Your task to perform on an android device: Open the stopwatch Image 0: 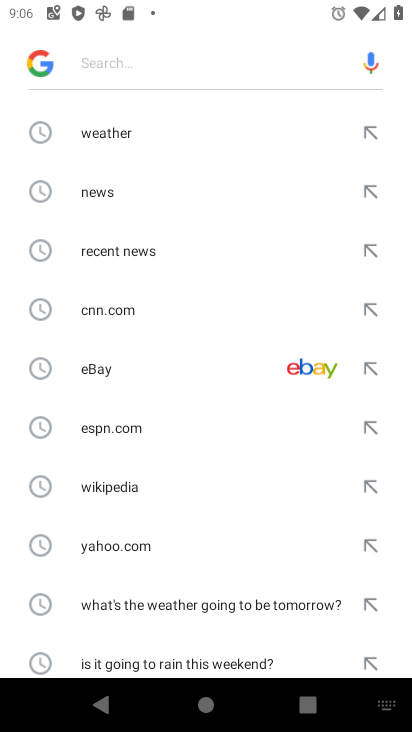
Step 0: press home button
Your task to perform on an android device: Open the stopwatch Image 1: 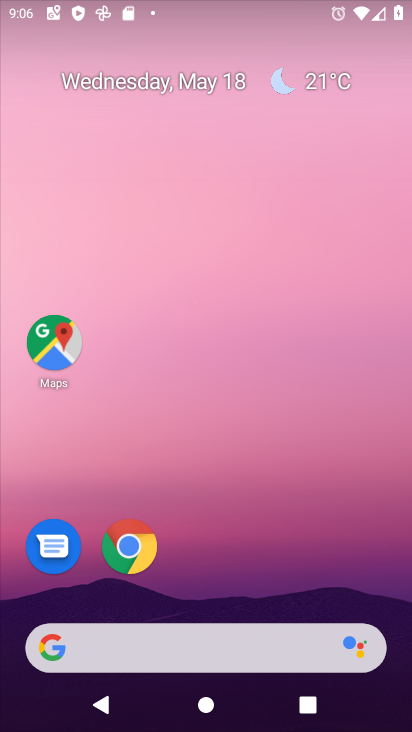
Step 1: drag from (390, 630) to (232, 124)
Your task to perform on an android device: Open the stopwatch Image 2: 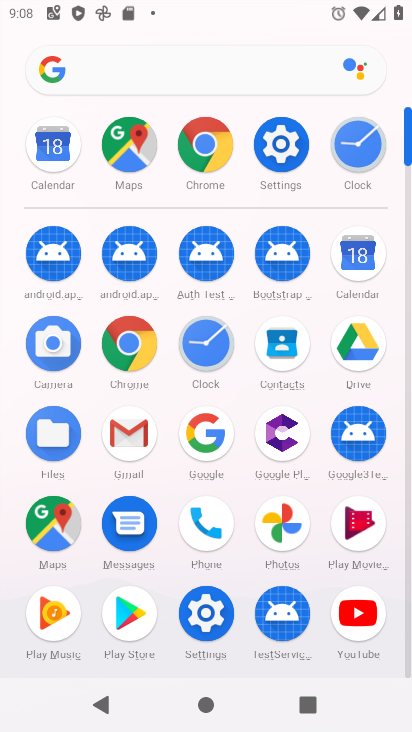
Step 2: click (215, 358)
Your task to perform on an android device: Open the stopwatch Image 3: 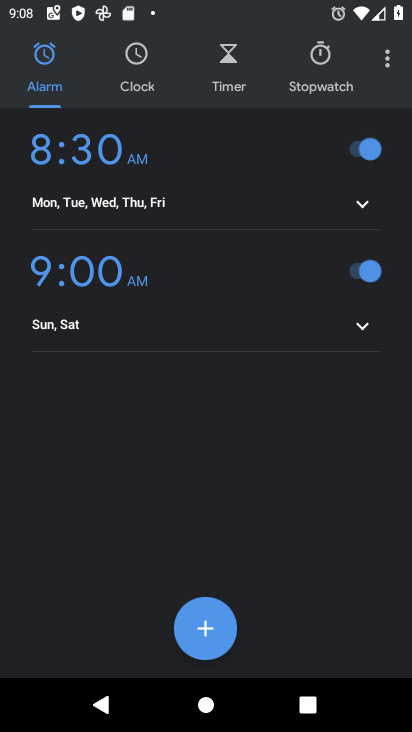
Step 3: click (322, 74)
Your task to perform on an android device: Open the stopwatch Image 4: 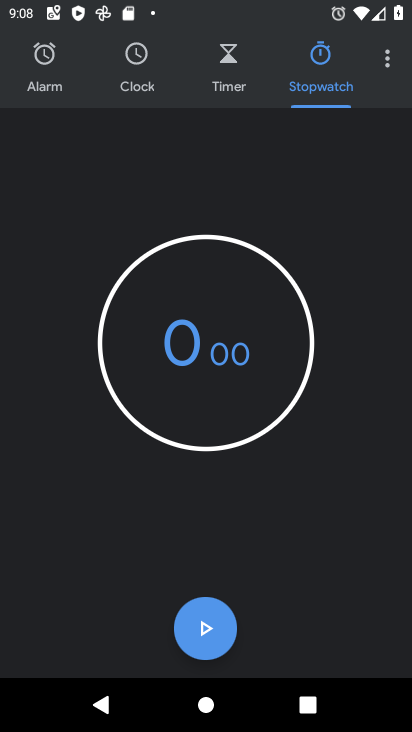
Step 4: task complete